Your task to perform on an android device: see sites visited before in the chrome app Image 0: 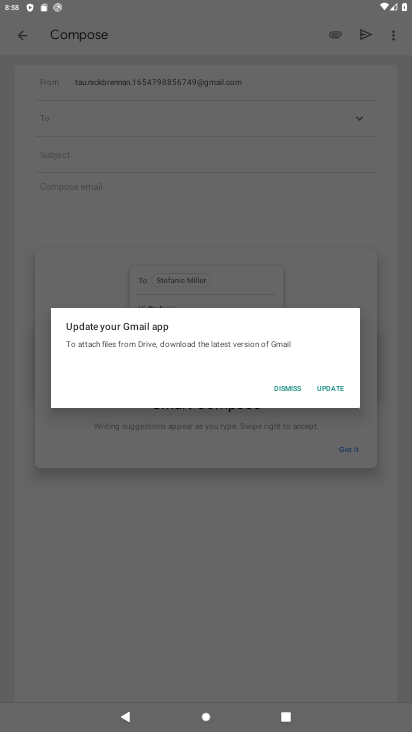
Step 0: press home button
Your task to perform on an android device: see sites visited before in the chrome app Image 1: 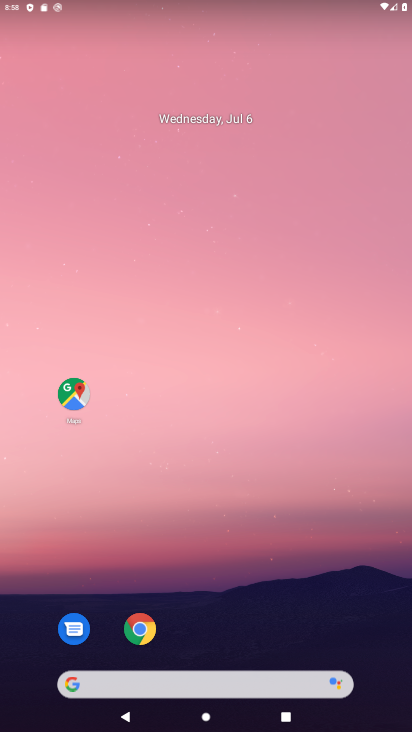
Step 1: drag from (249, 627) to (200, 22)
Your task to perform on an android device: see sites visited before in the chrome app Image 2: 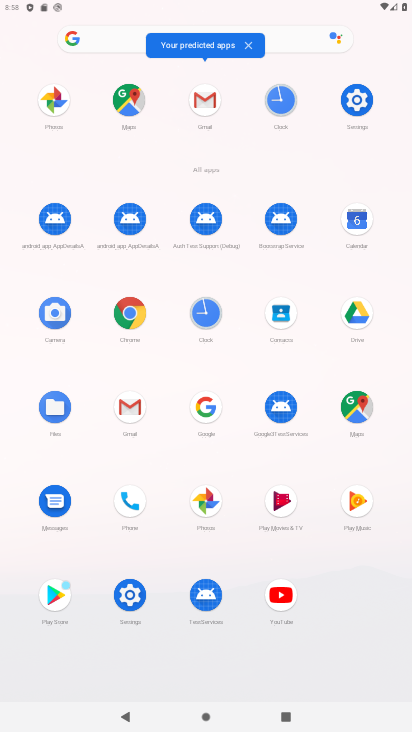
Step 2: click (131, 321)
Your task to perform on an android device: see sites visited before in the chrome app Image 3: 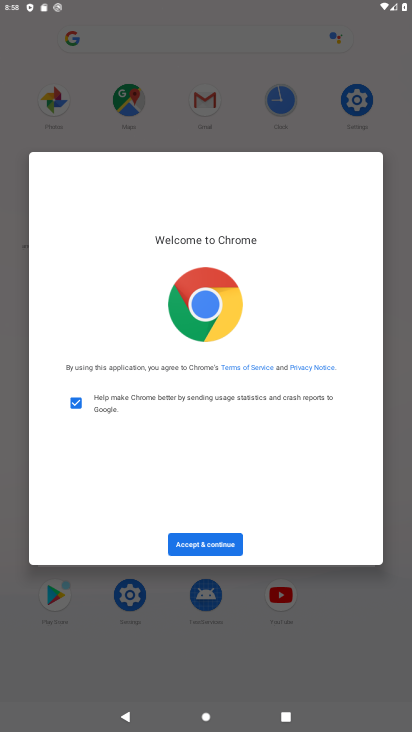
Step 3: click (198, 538)
Your task to perform on an android device: see sites visited before in the chrome app Image 4: 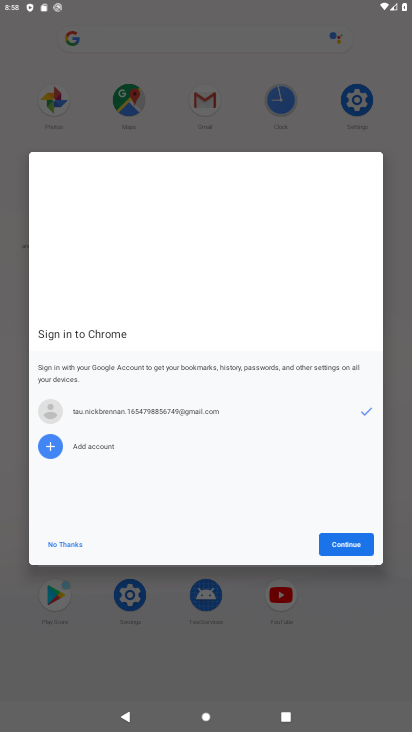
Step 4: click (70, 549)
Your task to perform on an android device: see sites visited before in the chrome app Image 5: 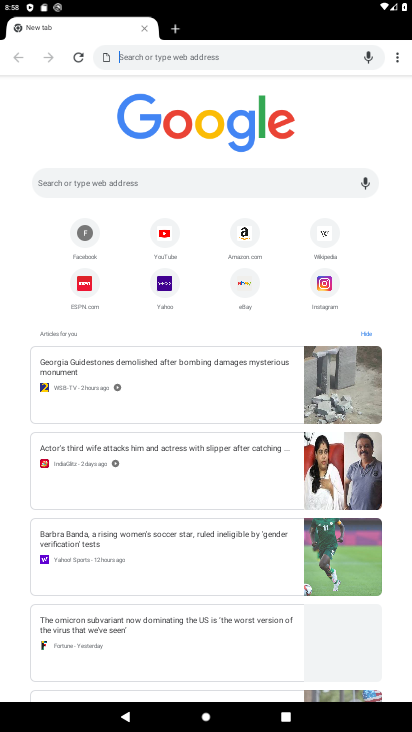
Step 5: click (390, 56)
Your task to perform on an android device: see sites visited before in the chrome app Image 6: 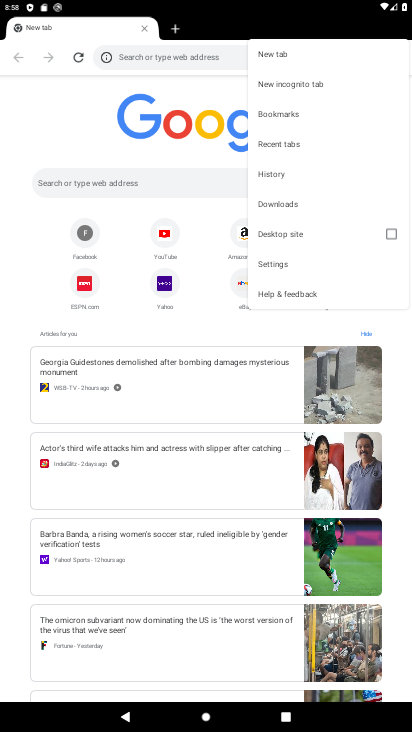
Step 6: click (300, 146)
Your task to perform on an android device: see sites visited before in the chrome app Image 7: 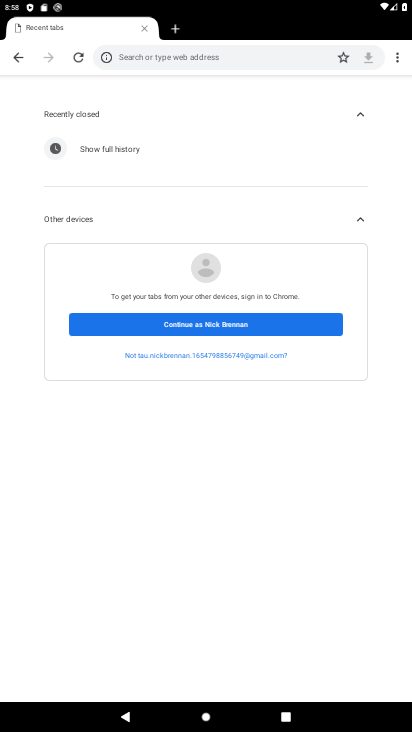
Step 7: task complete